Your task to perform on an android device: Play the last video I watched on Youtube Image 0: 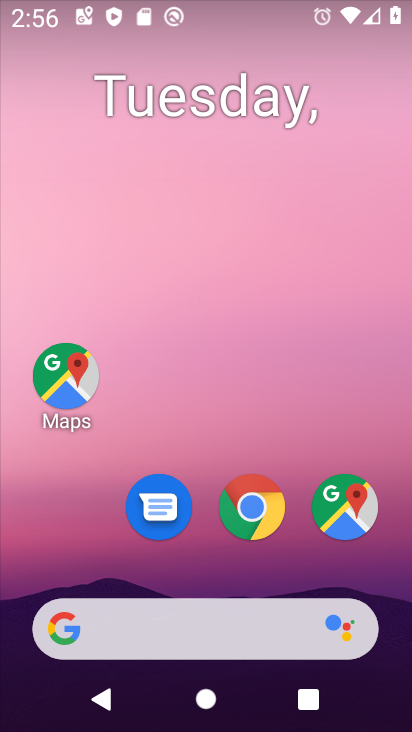
Step 0: drag from (276, 454) to (279, 117)
Your task to perform on an android device: Play the last video I watched on Youtube Image 1: 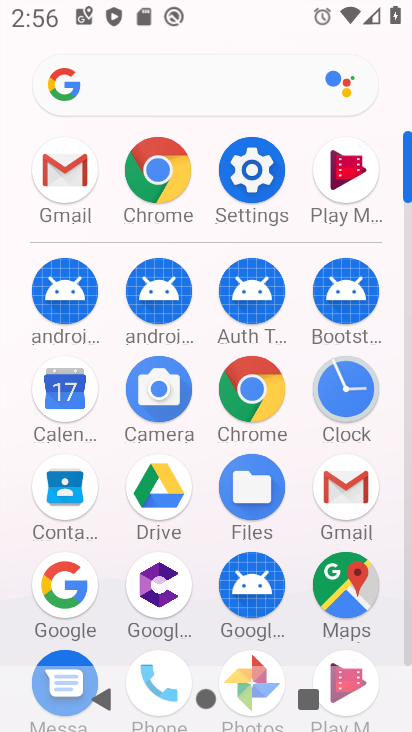
Step 1: drag from (229, 589) to (279, 66)
Your task to perform on an android device: Play the last video I watched on Youtube Image 2: 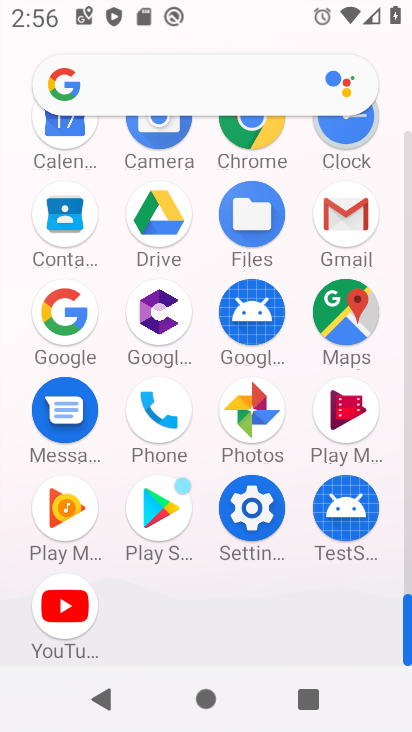
Step 2: click (50, 605)
Your task to perform on an android device: Play the last video I watched on Youtube Image 3: 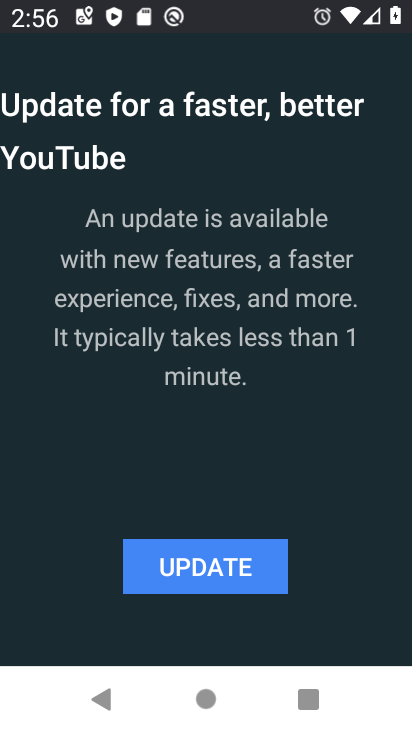
Step 3: task complete